Your task to perform on an android device: open app "Google Chrome" (install if not already installed) Image 0: 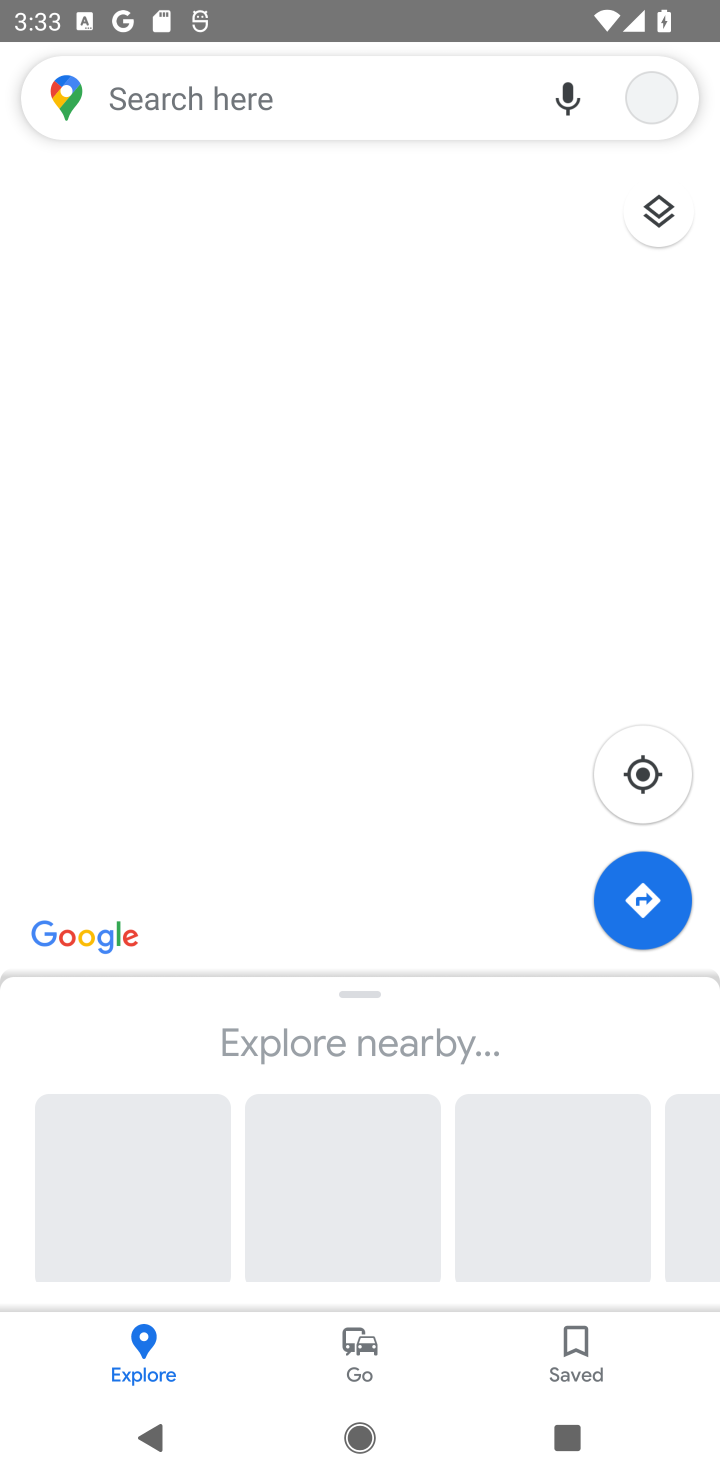
Step 0: press home button
Your task to perform on an android device: open app "Google Chrome" (install if not already installed) Image 1: 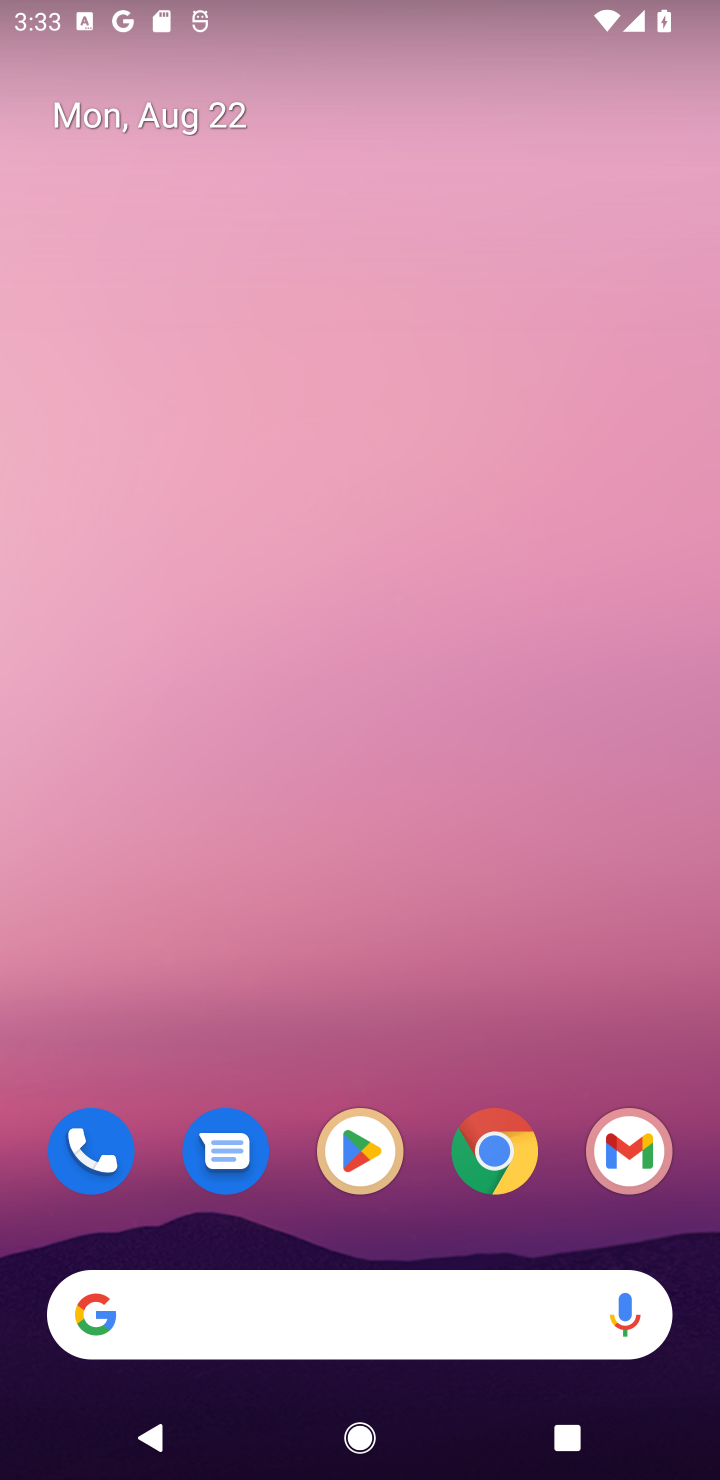
Step 1: click (360, 1144)
Your task to perform on an android device: open app "Google Chrome" (install if not already installed) Image 2: 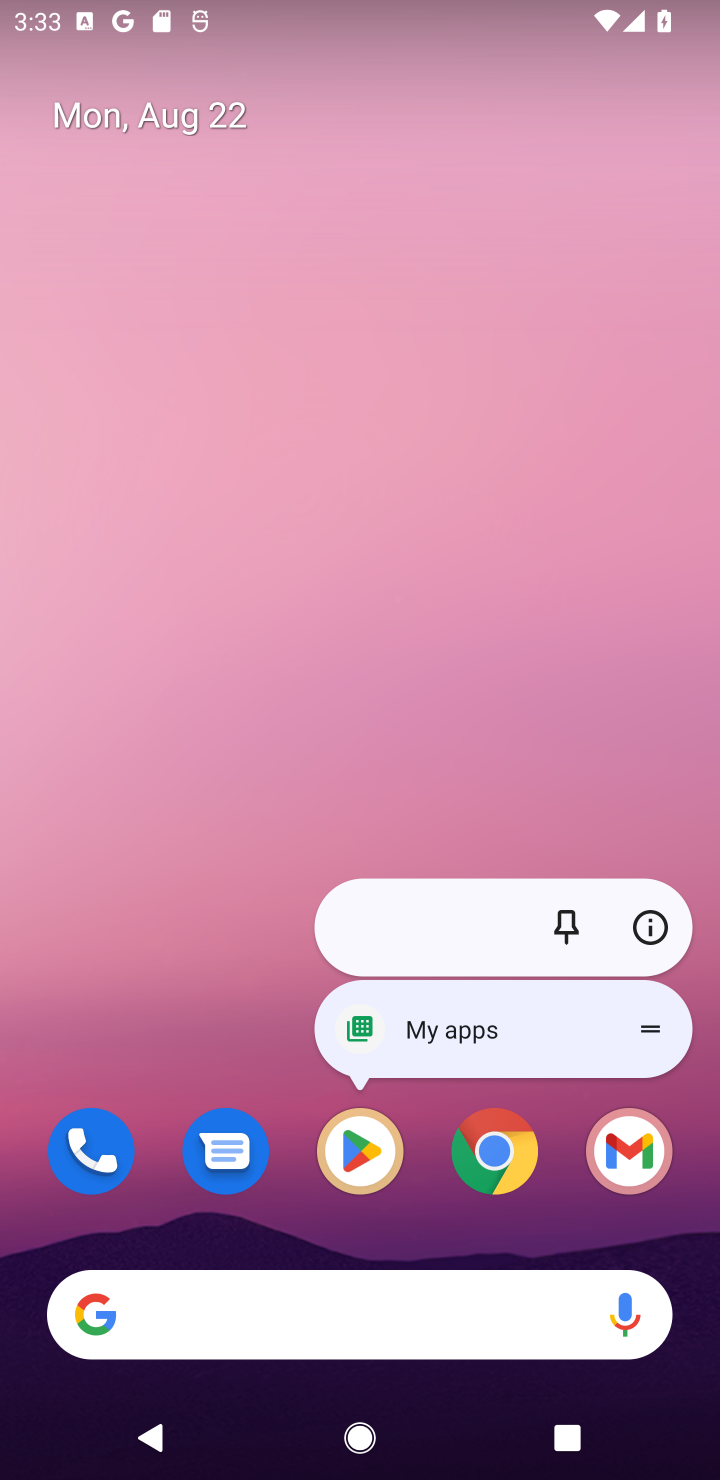
Step 2: click (360, 1145)
Your task to perform on an android device: open app "Google Chrome" (install if not already installed) Image 3: 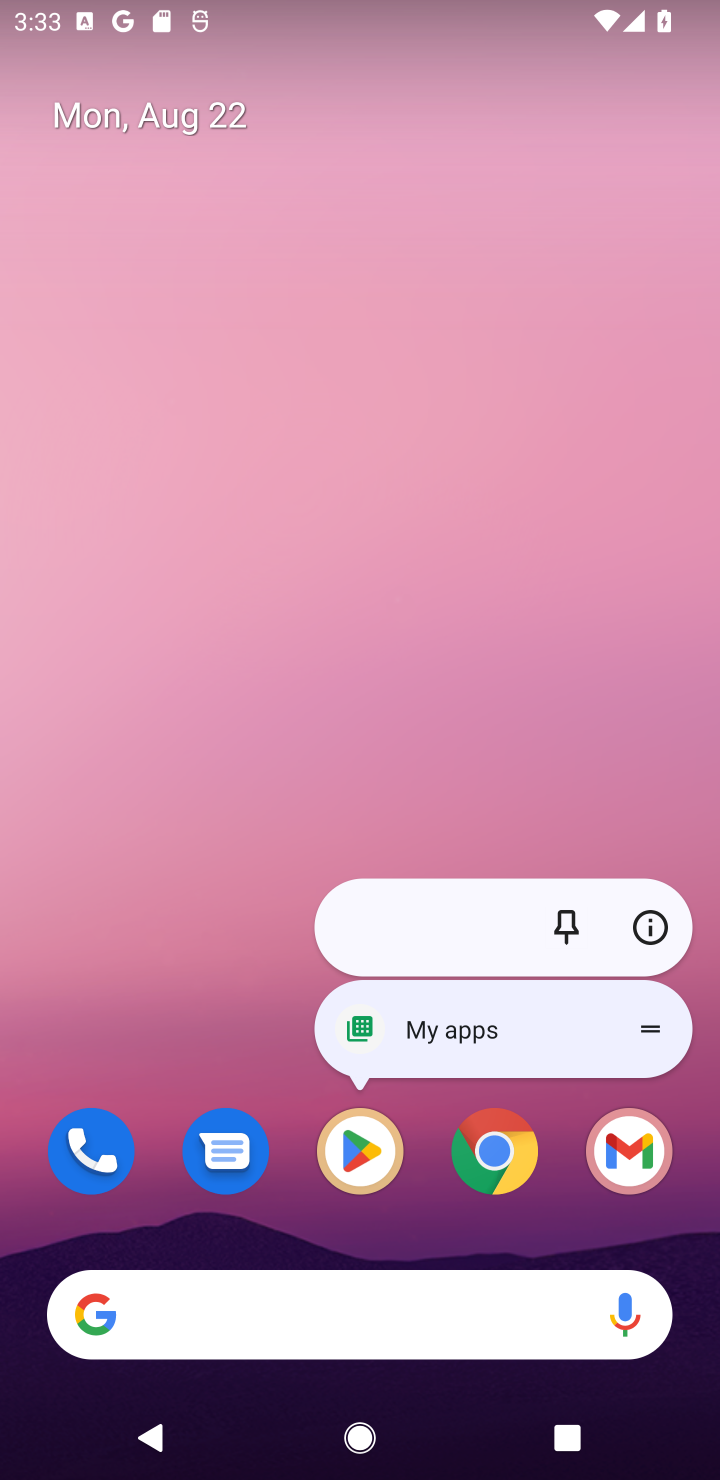
Step 3: click (360, 1151)
Your task to perform on an android device: open app "Google Chrome" (install if not already installed) Image 4: 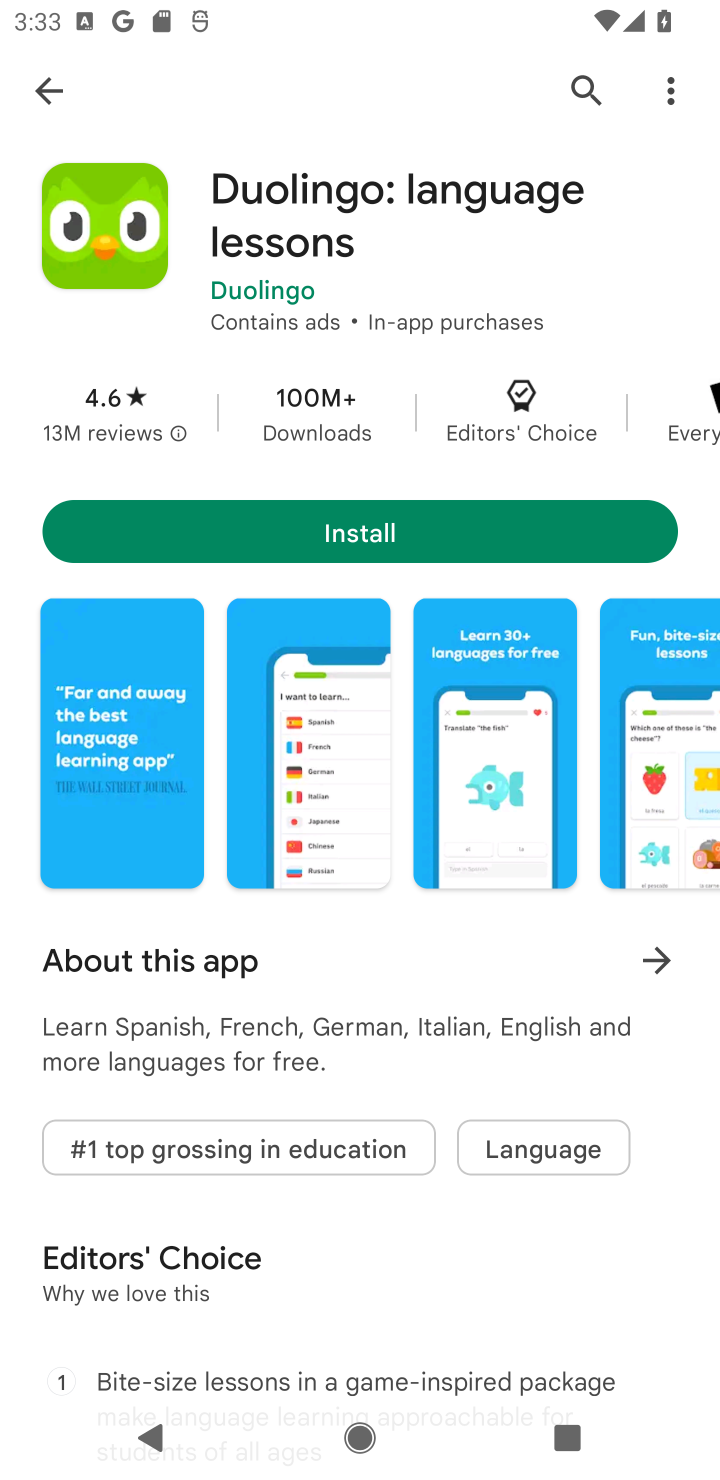
Step 4: click (583, 89)
Your task to perform on an android device: open app "Google Chrome" (install if not already installed) Image 5: 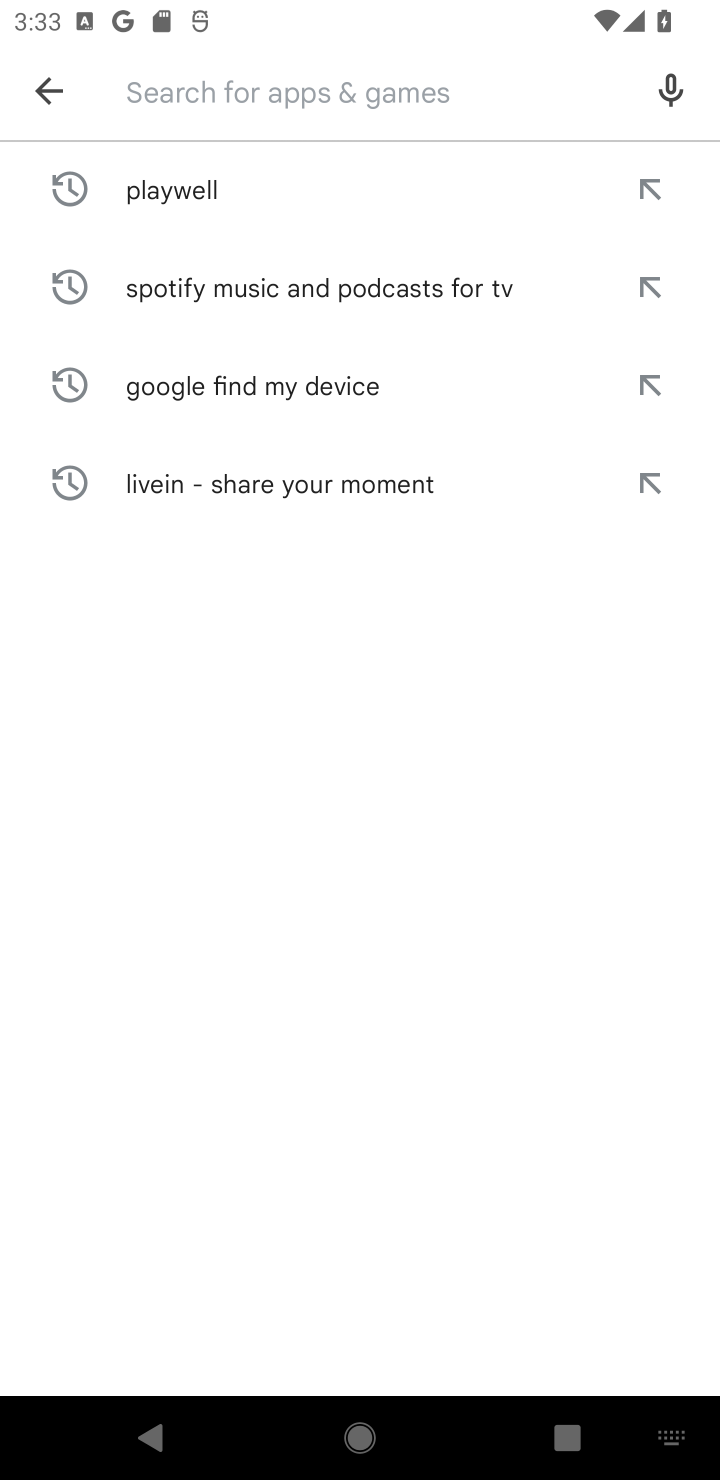
Step 5: type "Google Chrome"
Your task to perform on an android device: open app "Google Chrome" (install if not already installed) Image 6: 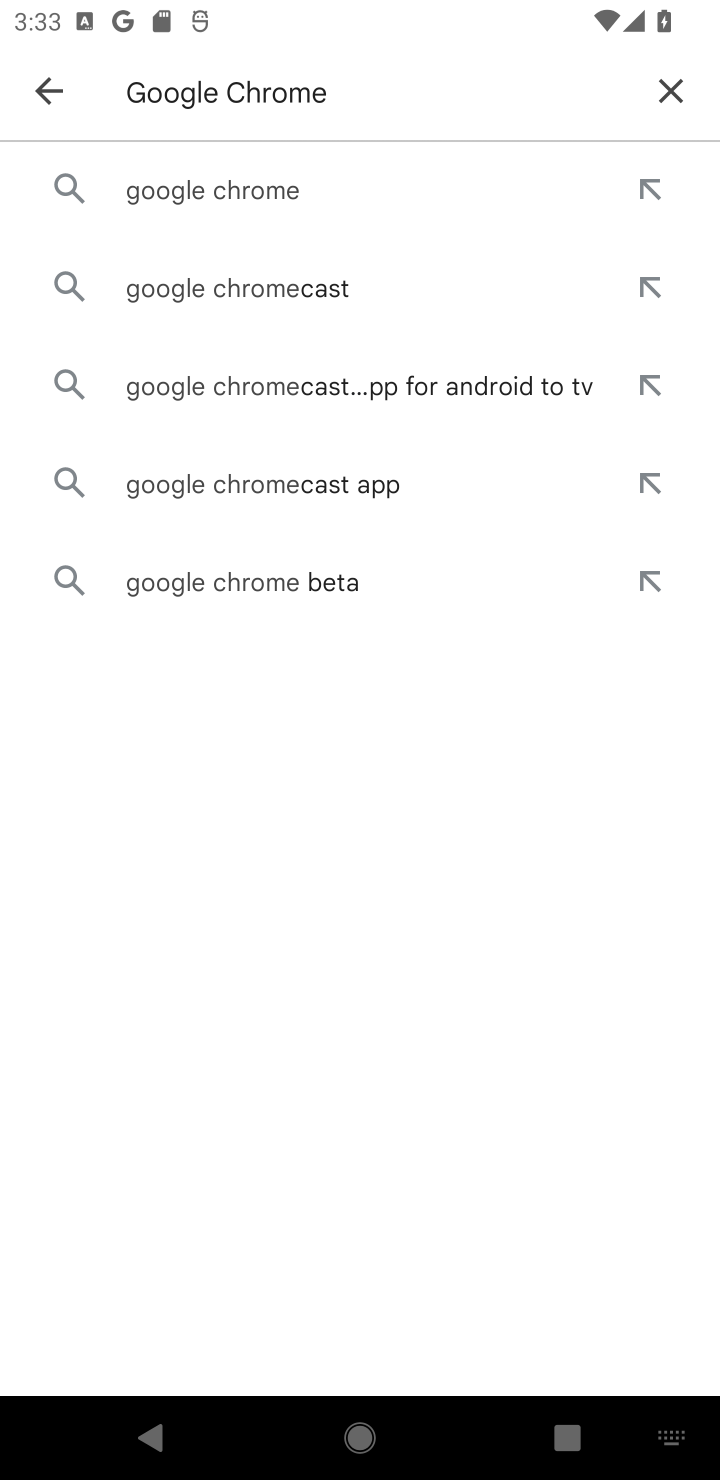
Step 6: click (245, 191)
Your task to perform on an android device: open app "Google Chrome" (install if not already installed) Image 7: 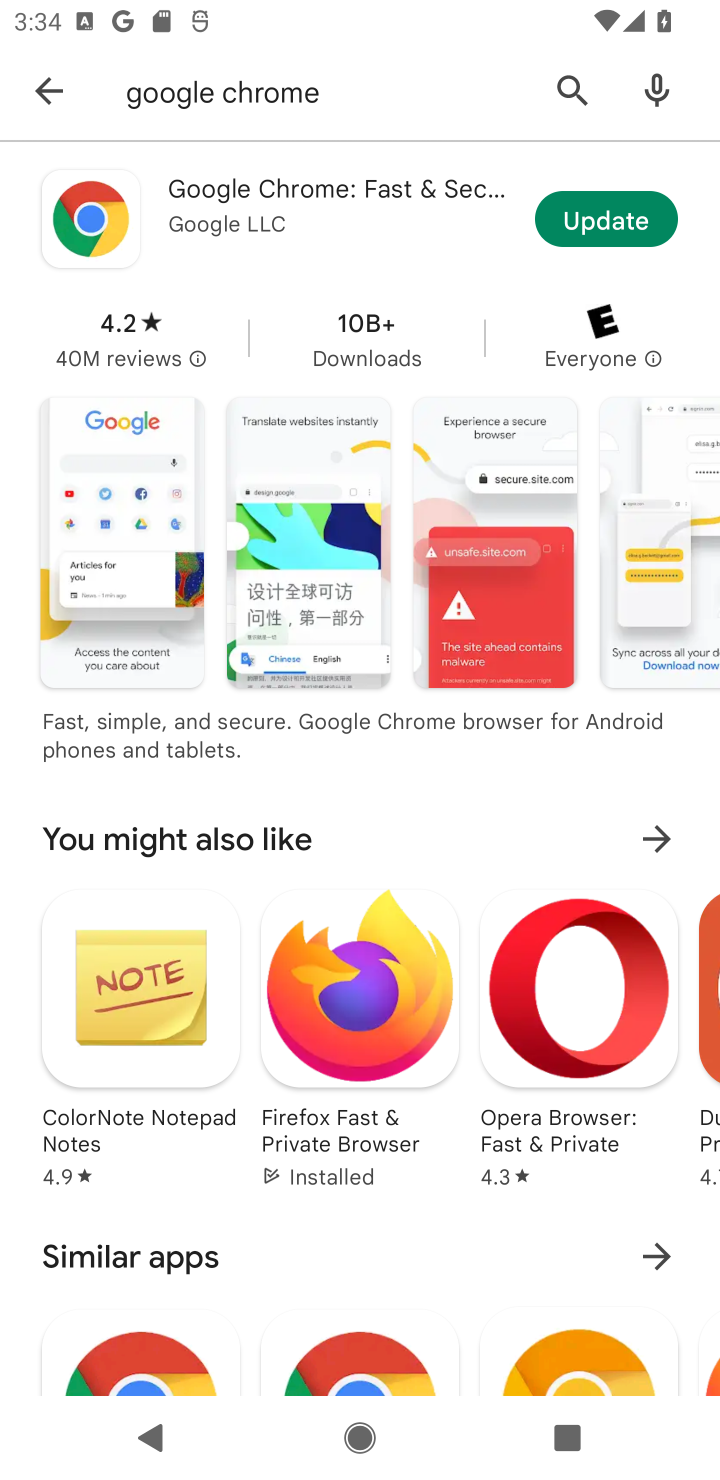
Step 7: task complete